Your task to perform on an android device: empty trash in the gmail app Image 0: 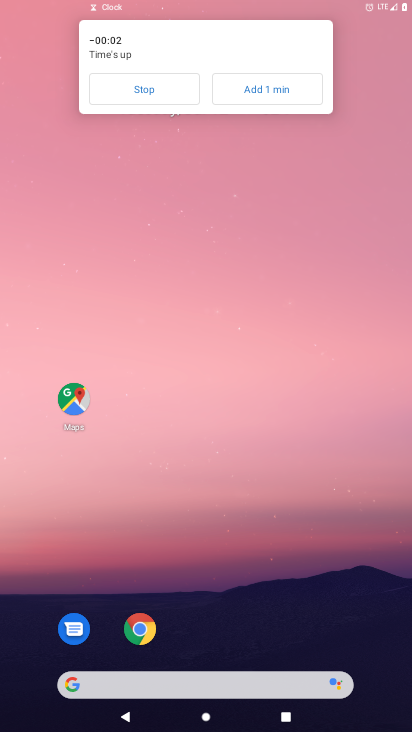
Step 0: drag from (199, 659) to (163, 151)
Your task to perform on an android device: empty trash in the gmail app Image 1: 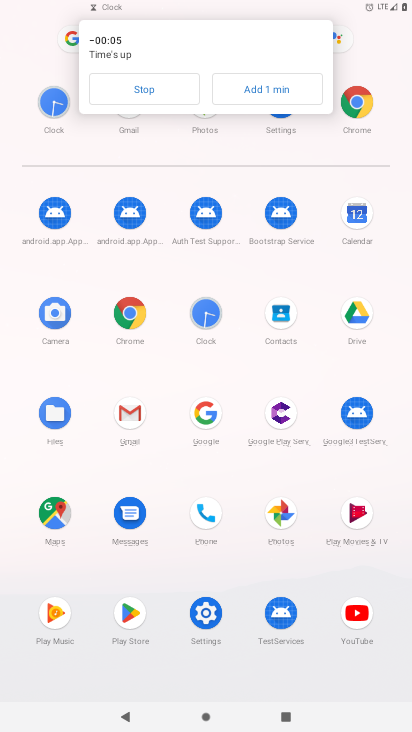
Step 1: click (130, 414)
Your task to perform on an android device: empty trash in the gmail app Image 2: 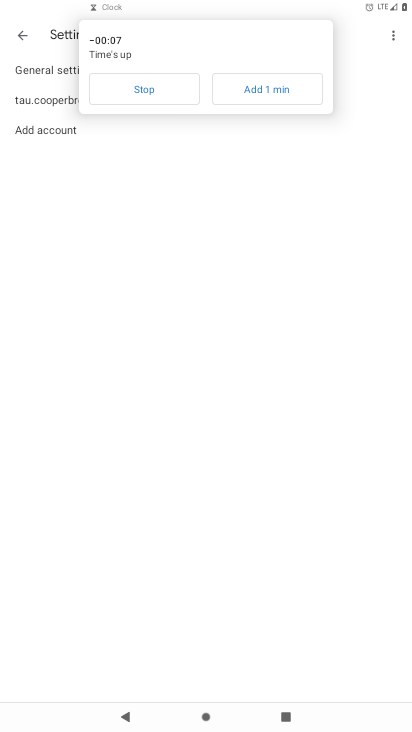
Step 2: click (136, 87)
Your task to perform on an android device: empty trash in the gmail app Image 3: 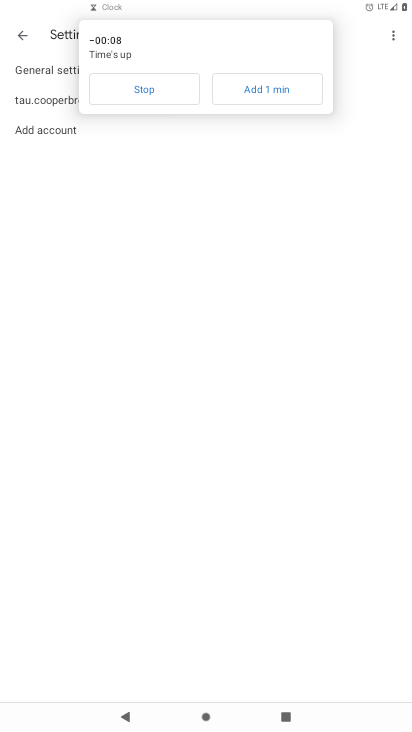
Step 3: click (18, 37)
Your task to perform on an android device: empty trash in the gmail app Image 4: 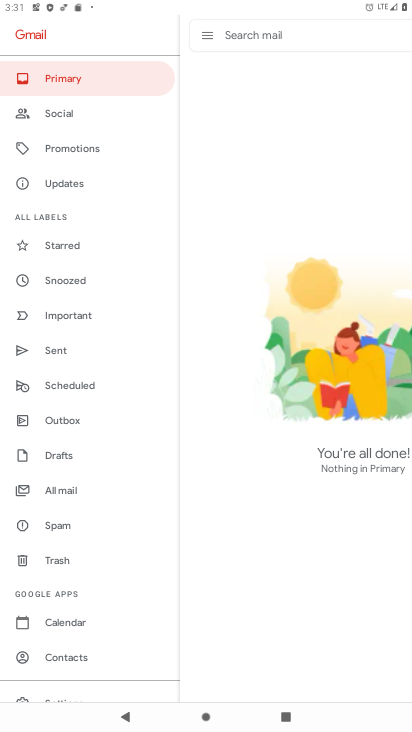
Step 4: click (54, 561)
Your task to perform on an android device: empty trash in the gmail app Image 5: 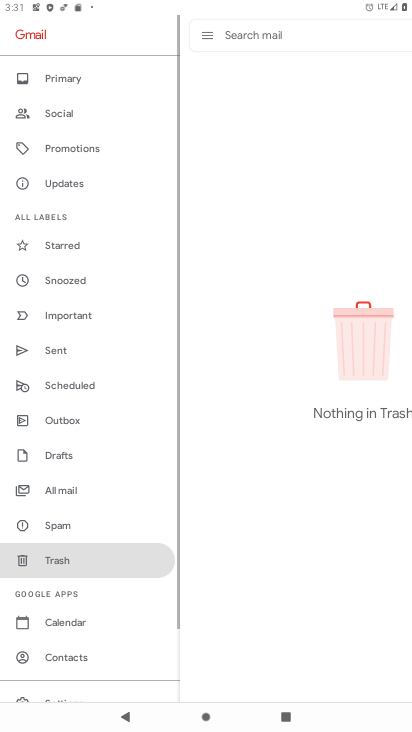
Step 5: task complete